Your task to perform on an android device: check storage Image 0: 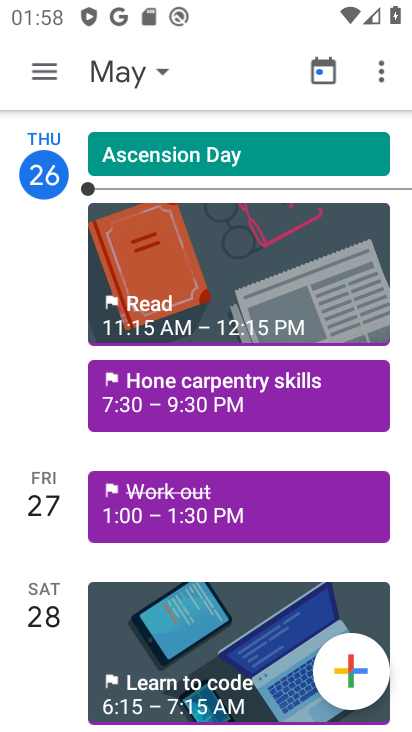
Step 0: press home button
Your task to perform on an android device: check storage Image 1: 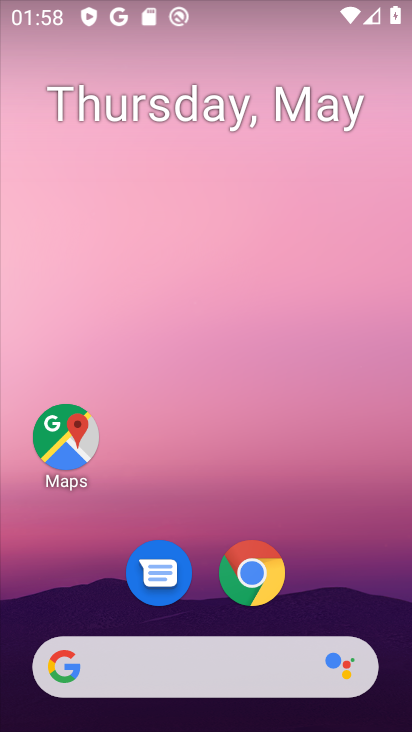
Step 1: drag from (287, 592) to (316, 267)
Your task to perform on an android device: check storage Image 2: 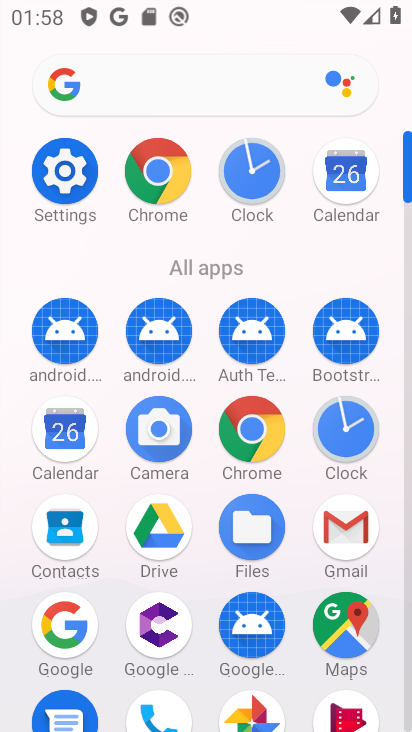
Step 2: click (75, 156)
Your task to perform on an android device: check storage Image 3: 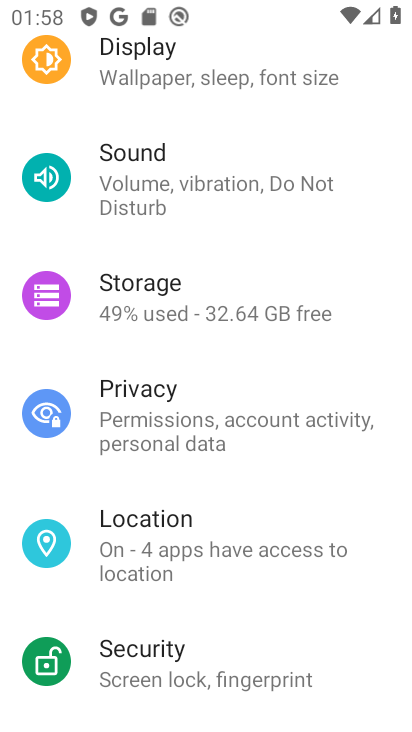
Step 3: click (183, 300)
Your task to perform on an android device: check storage Image 4: 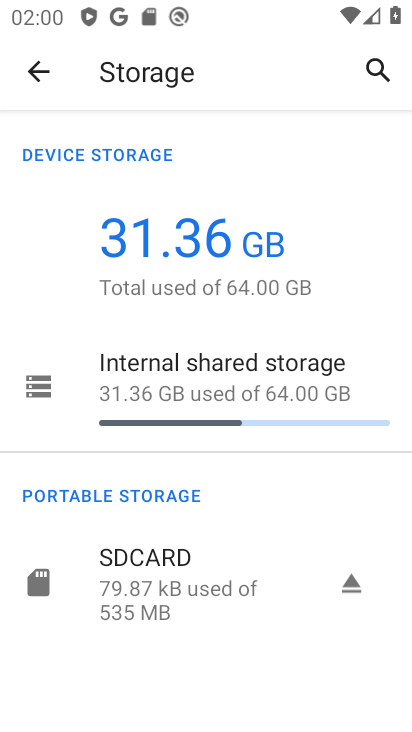
Step 4: task complete